Your task to perform on an android device: toggle location history Image 0: 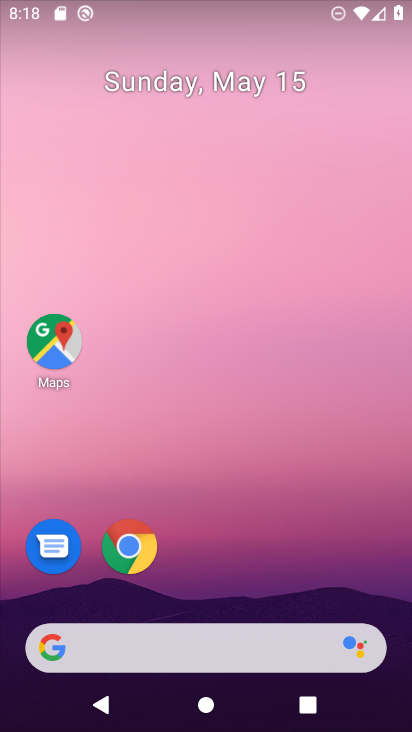
Step 0: drag from (235, 529) to (254, 13)
Your task to perform on an android device: toggle location history Image 1: 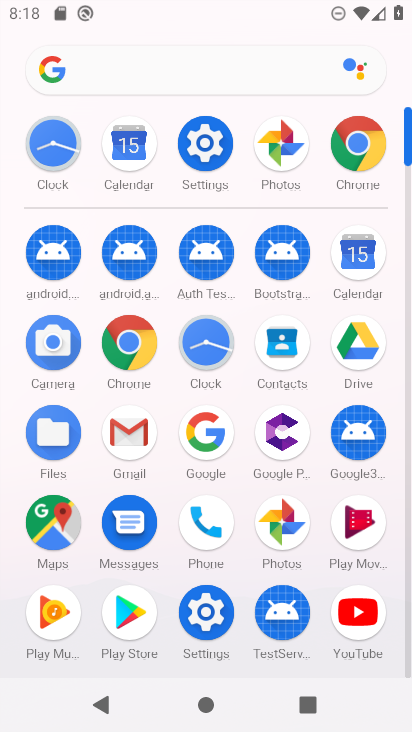
Step 1: click (213, 128)
Your task to perform on an android device: toggle location history Image 2: 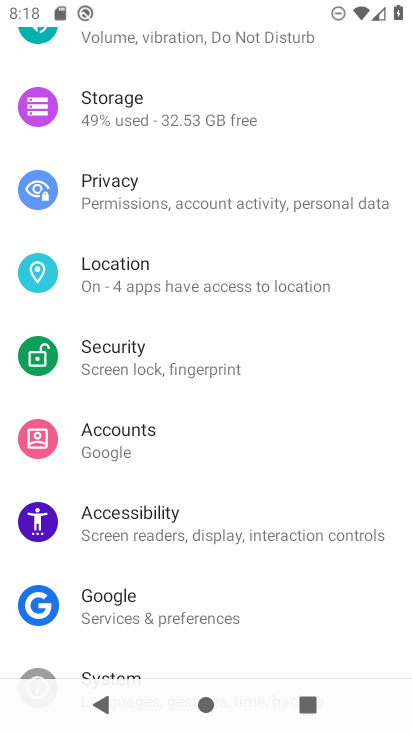
Step 2: click (235, 277)
Your task to perform on an android device: toggle location history Image 3: 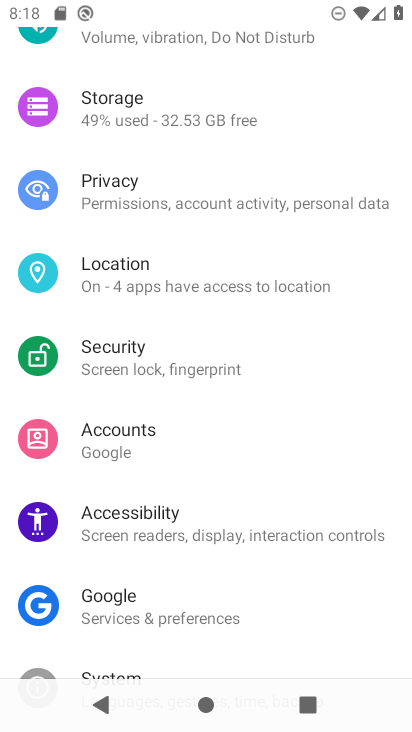
Step 3: click (254, 272)
Your task to perform on an android device: toggle location history Image 4: 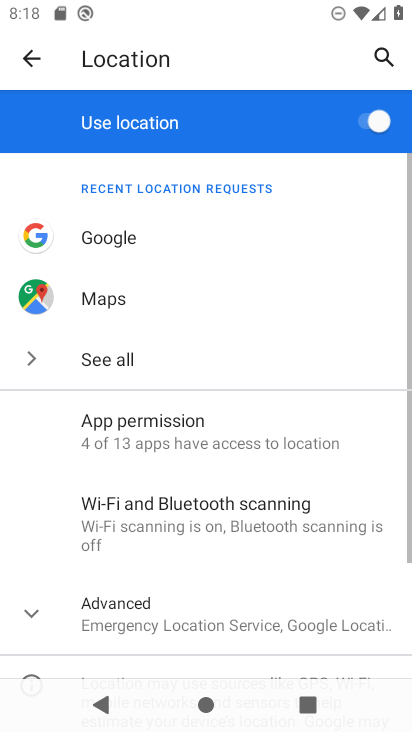
Step 4: click (34, 604)
Your task to perform on an android device: toggle location history Image 5: 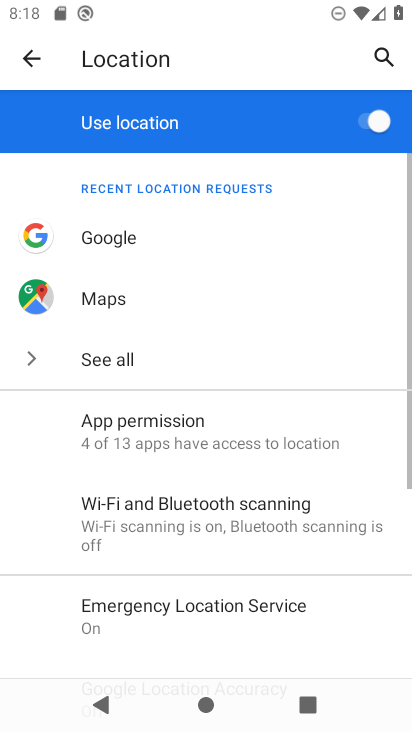
Step 5: drag from (190, 503) to (244, 195)
Your task to perform on an android device: toggle location history Image 6: 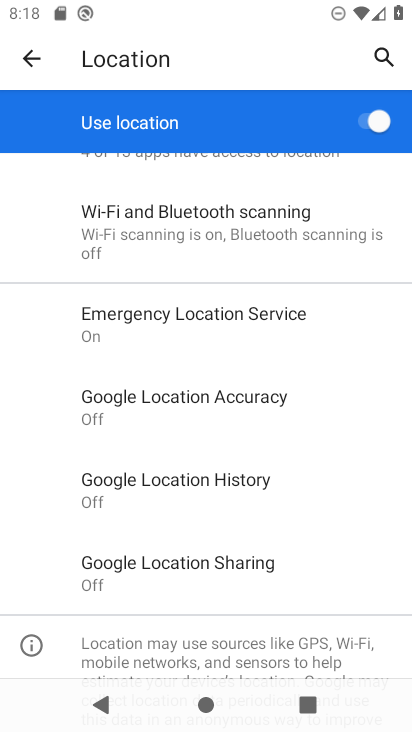
Step 6: click (223, 483)
Your task to perform on an android device: toggle location history Image 7: 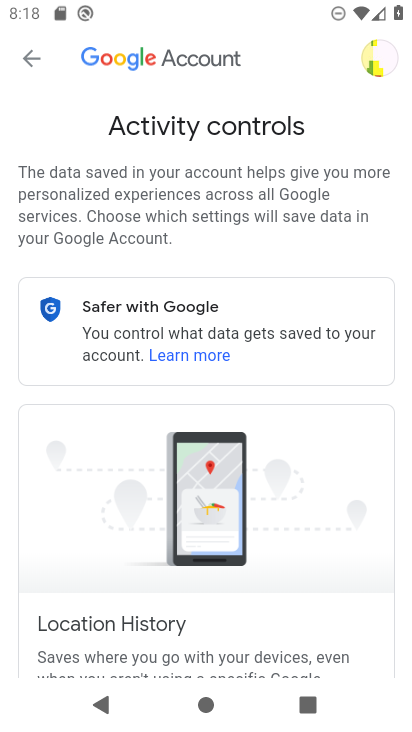
Step 7: drag from (294, 477) to (320, 106)
Your task to perform on an android device: toggle location history Image 8: 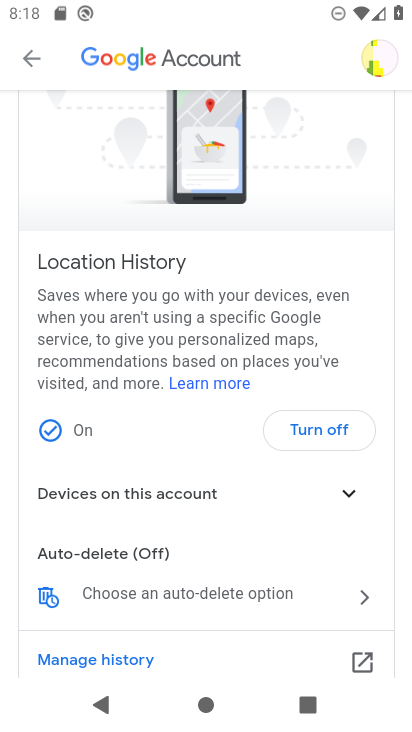
Step 8: click (334, 434)
Your task to perform on an android device: toggle location history Image 9: 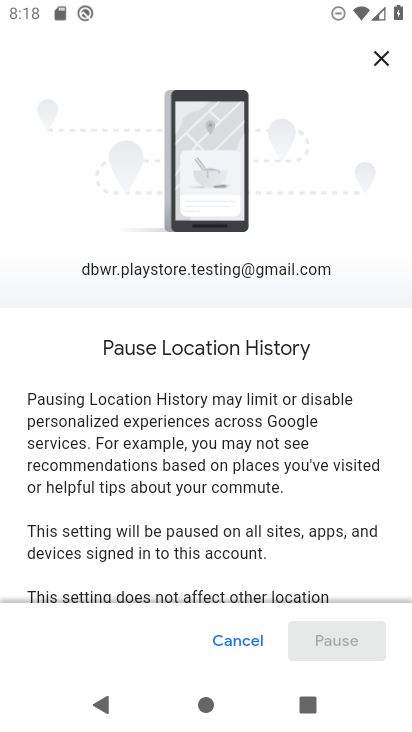
Step 9: drag from (300, 539) to (305, 19)
Your task to perform on an android device: toggle location history Image 10: 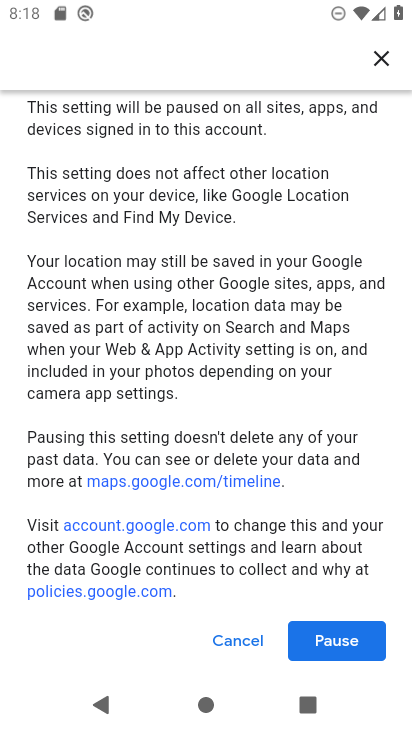
Step 10: click (346, 646)
Your task to perform on an android device: toggle location history Image 11: 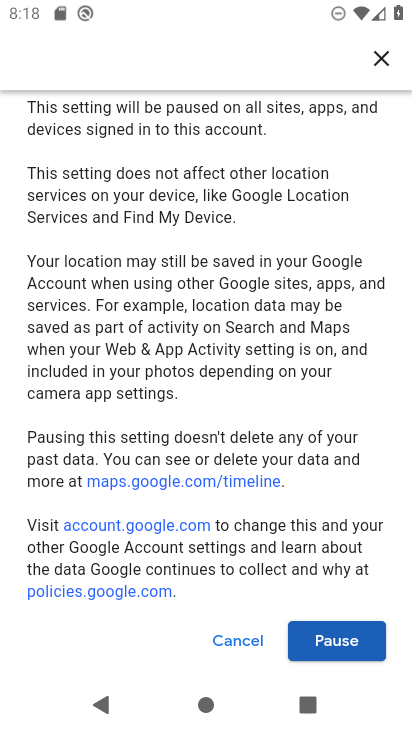
Step 11: click (364, 645)
Your task to perform on an android device: toggle location history Image 12: 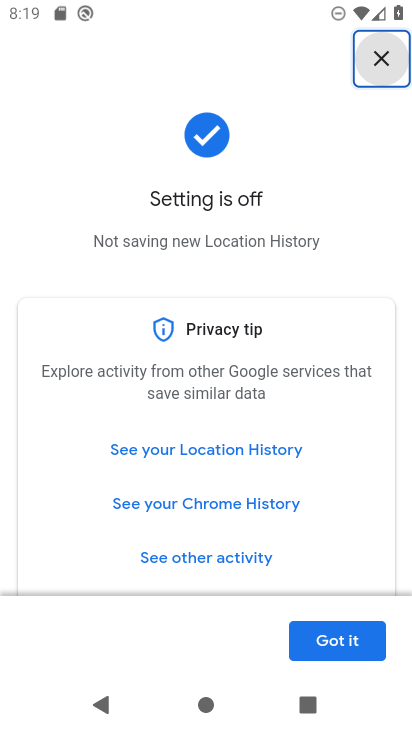
Step 12: click (362, 644)
Your task to perform on an android device: toggle location history Image 13: 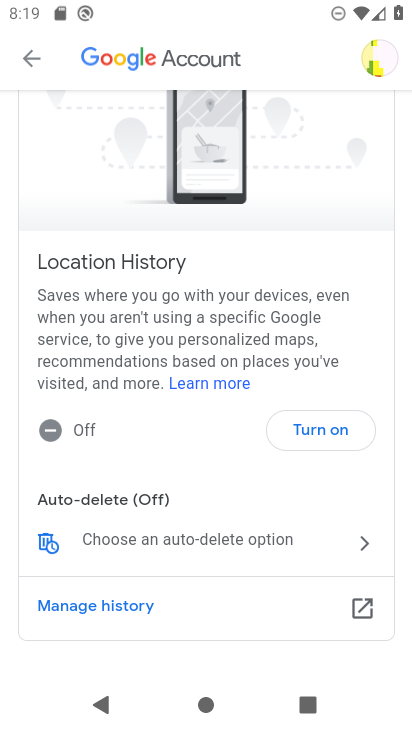
Step 13: task complete